Your task to perform on an android device: toggle airplane mode Image 0: 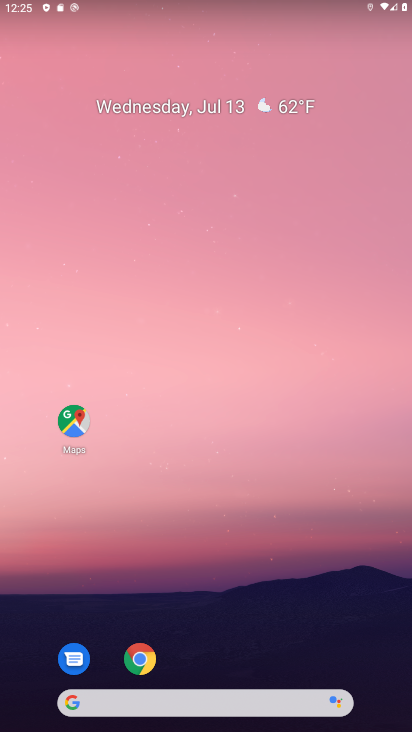
Step 0: drag from (0, 0) to (189, 137)
Your task to perform on an android device: toggle airplane mode Image 1: 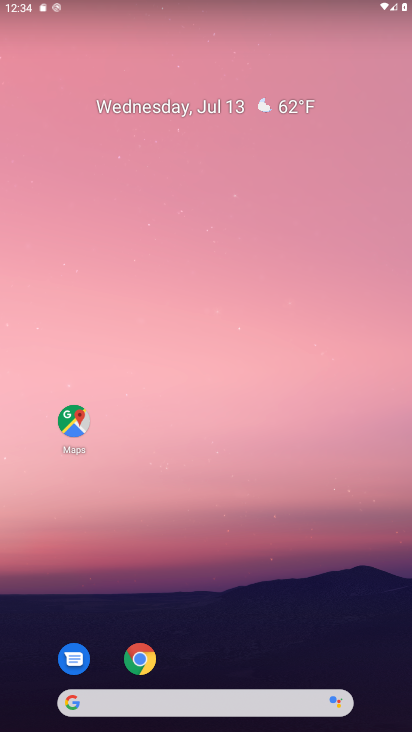
Step 1: drag from (256, 730) to (140, 96)
Your task to perform on an android device: toggle airplane mode Image 2: 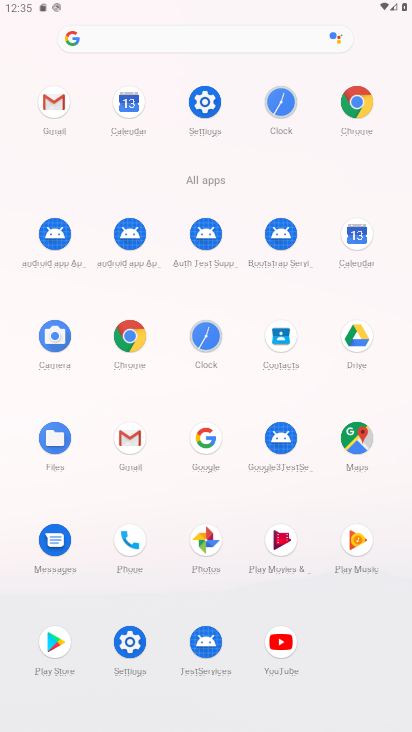
Step 2: click (214, 113)
Your task to perform on an android device: toggle airplane mode Image 3: 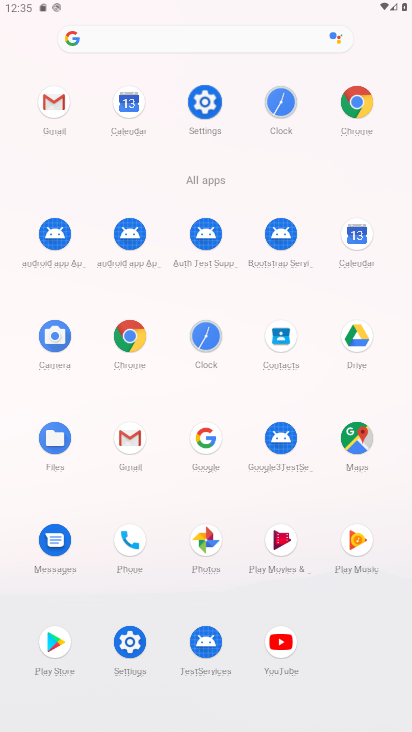
Step 3: click (217, 111)
Your task to perform on an android device: toggle airplane mode Image 4: 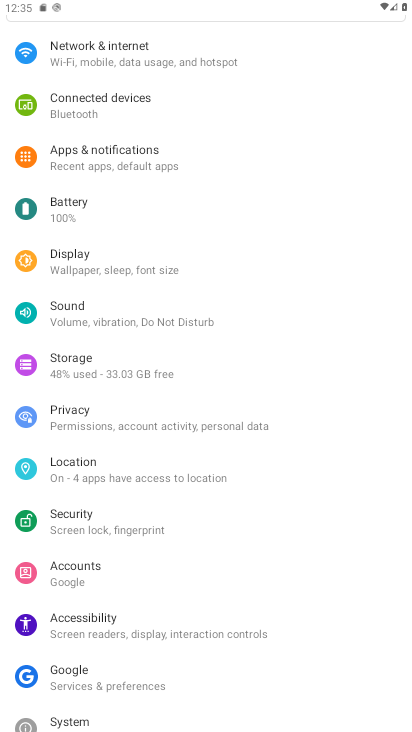
Step 4: click (123, 57)
Your task to perform on an android device: toggle airplane mode Image 5: 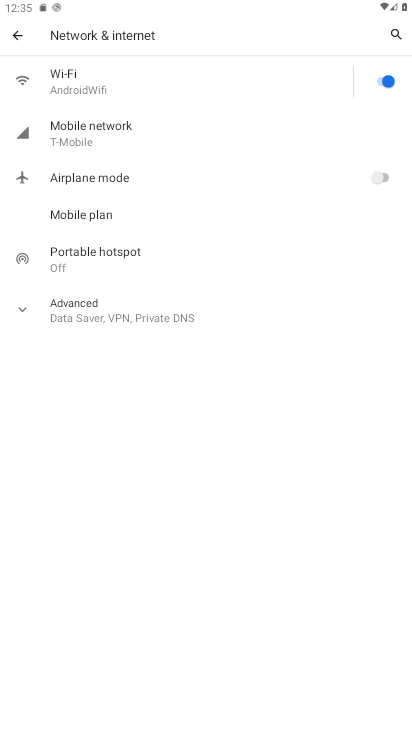
Step 5: click (378, 178)
Your task to perform on an android device: toggle airplane mode Image 6: 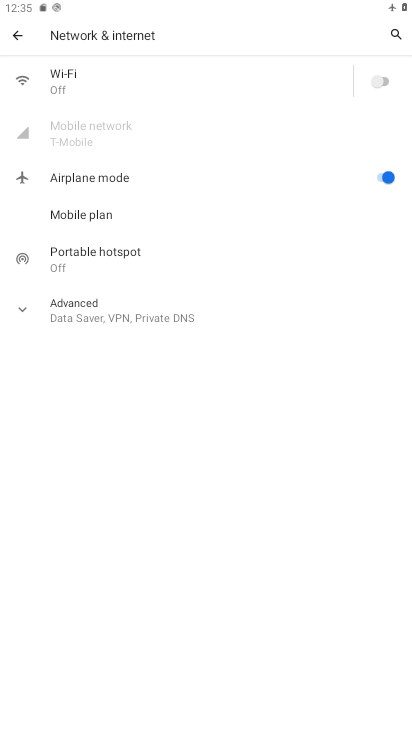
Step 6: click (383, 180)
Your task to perform on an android device: toggle airplane mode Image 7: 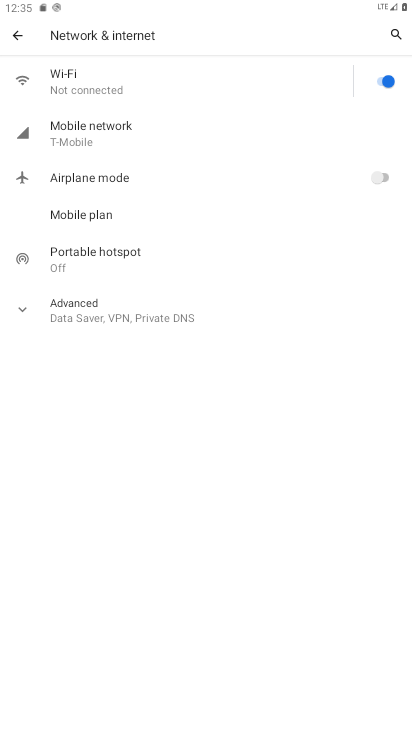
Step 7: task complete